Your task to perform on an android device: What is the news today? Image 0: 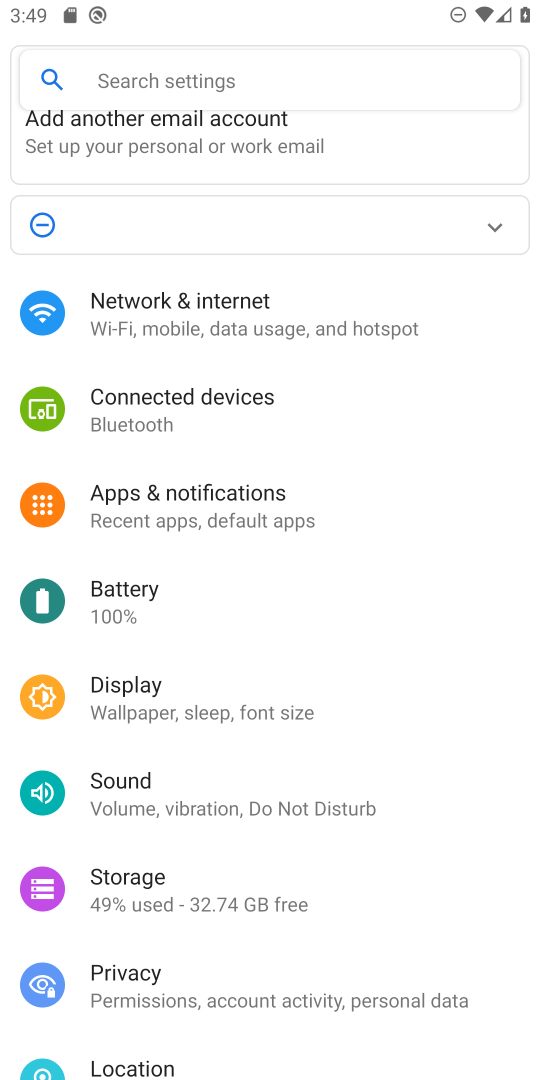
Step 0: press home button
Your task to perform on an android device: What is the news today? Image 1: 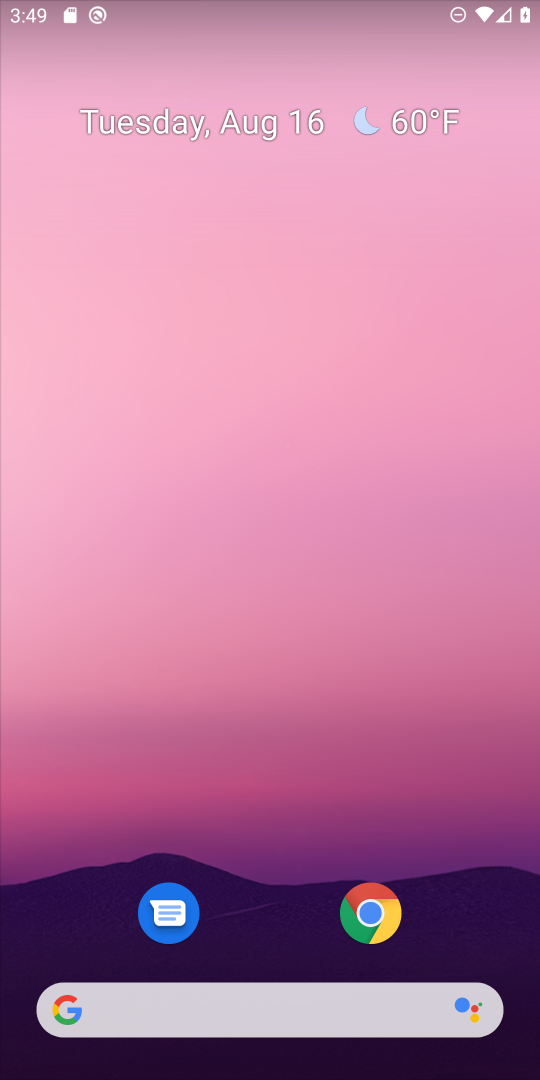
Step 1: drag from (9, 483) to (527, 468)
Your task to perform on an android device: What is the news today? Image 2: 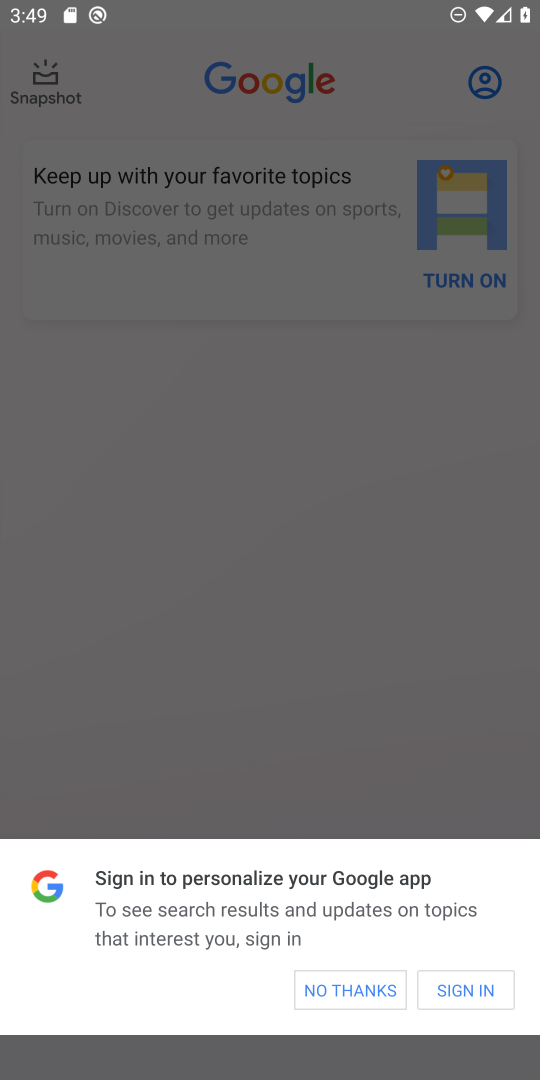
Step 2: click (351, 978)
Your task to perform on an android device: What is the news today? Image 3: 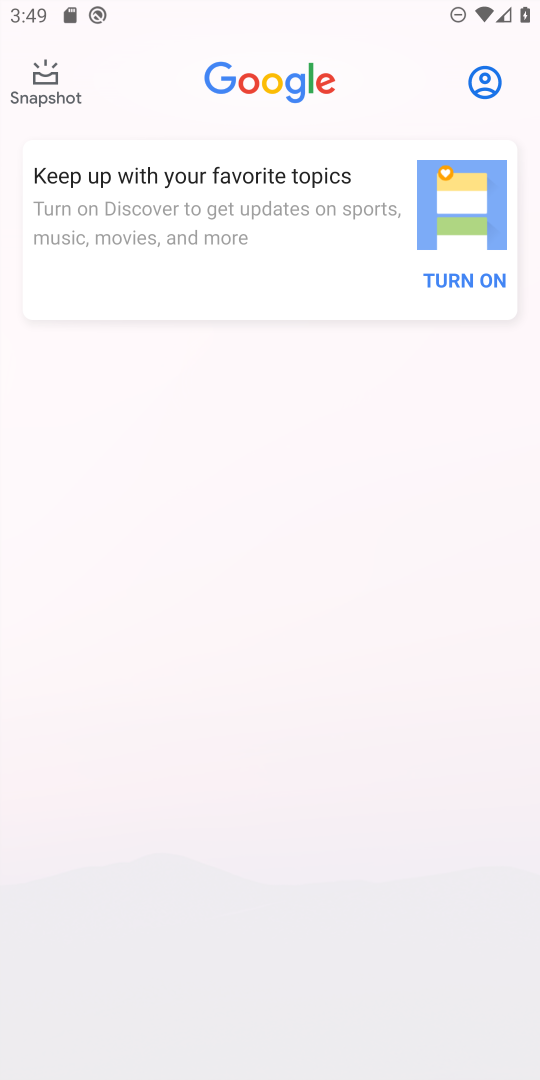
Step 3: task complete